Your task to perform on an android device: turn off notifications in google photos Image 0: 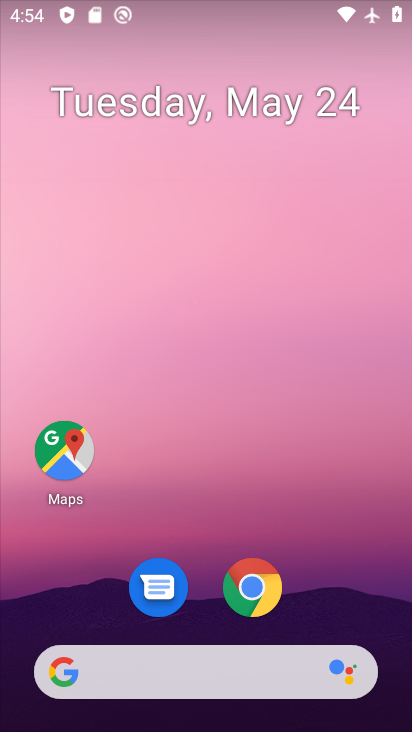
Step 0: drag from (328, 493) to (257, 7)
Your task to perform on an android device: turn off notifications in google photos Image 1: 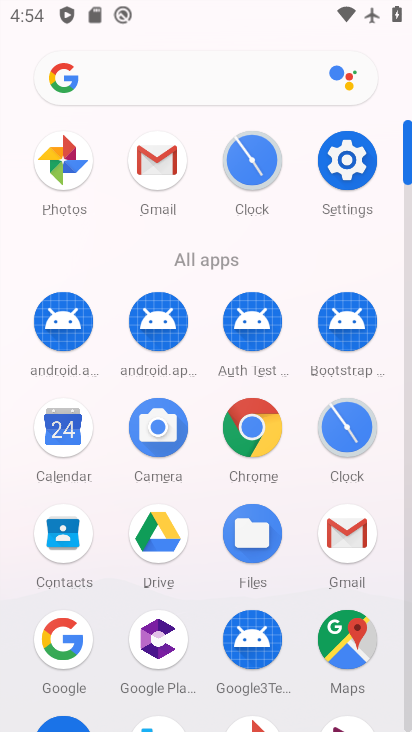
Step 1: click (262, 722)
Your task to perform on an android device: turn off notifications in google photos Image 2: 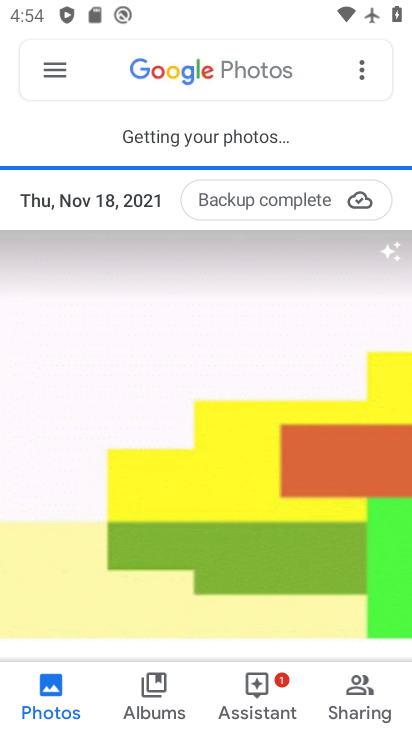
Step 2: click (54, 67)
Your task to perform on an android device: turn off notifications in google photos Image 3: 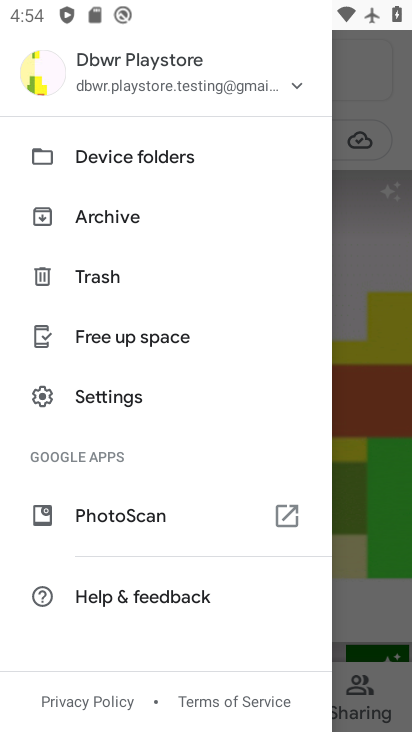
Step 3: click (129, 395)
Your task to perform on an android device: turn off notifications in google photos Image 4: 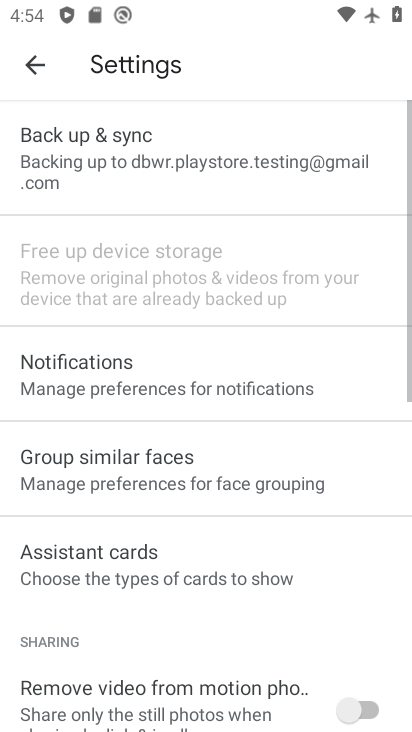
Step 4: click (190, 389)
Your task to perform on an android device: turn off notifications in google photos Image 5: 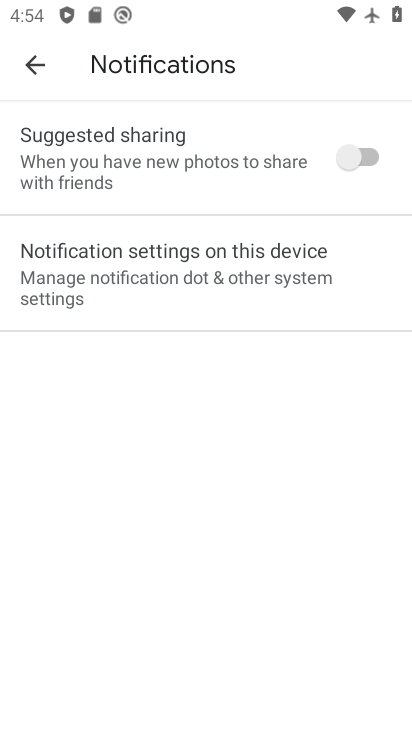
Step 5: task complete